Your task to perform on an android device: change the clock style Image 0: 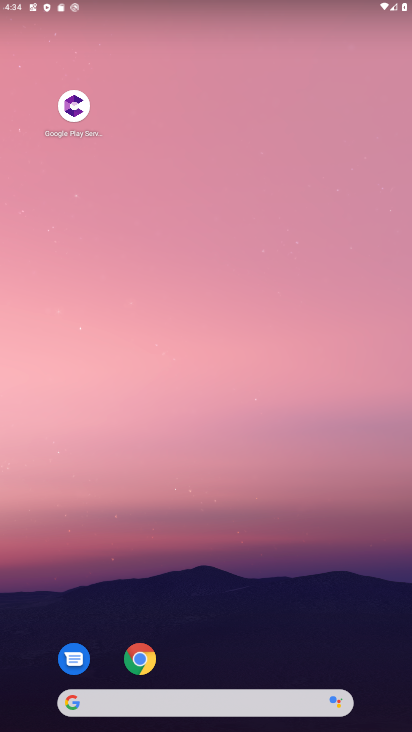
Step 0: drag from (218, 685) to (345, 14)
Your task to perform on an android device: change the clock style Image 1: 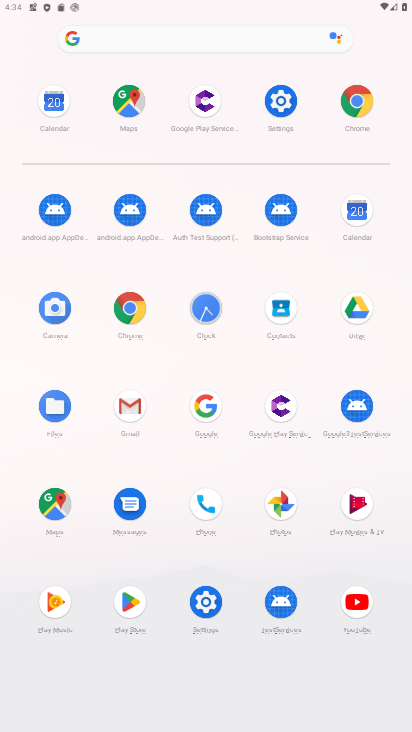
Step 1: click (213, 301)
Your task to perform on an android device: change the clock style Image 2: 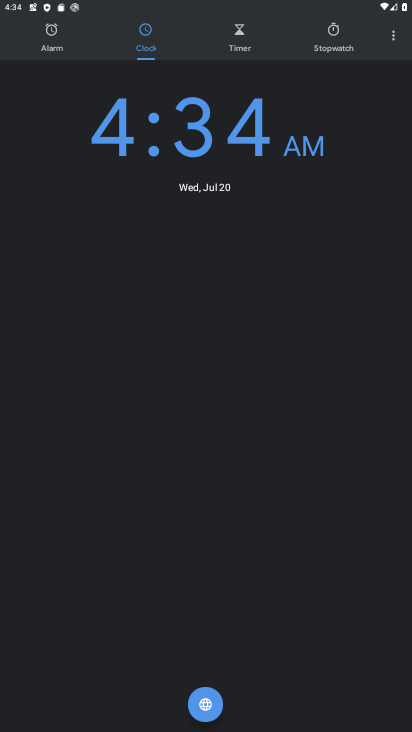
Step 2: click (400, 36)
Your task to perform on an android device: change the clock style Image 3: 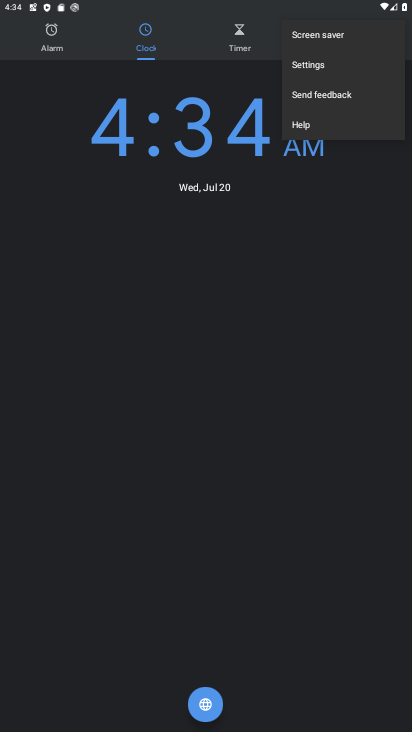
Step 3: click (322, 72)
Your task to perform on an android device: change the clock style Image 4: 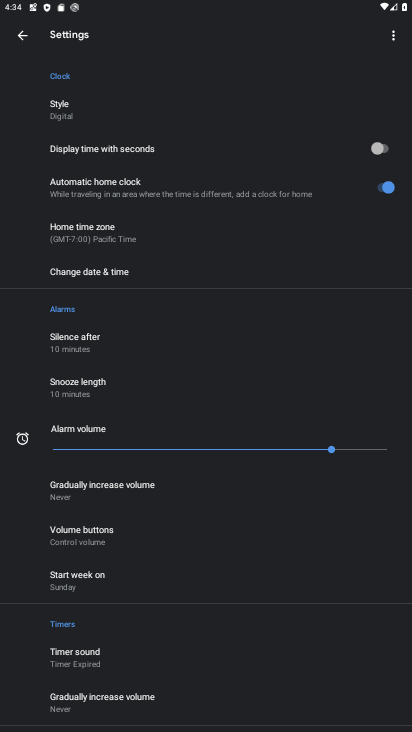
Step 4: task complete